Your task to perform on an android device: empty trash in google photos Image 0: 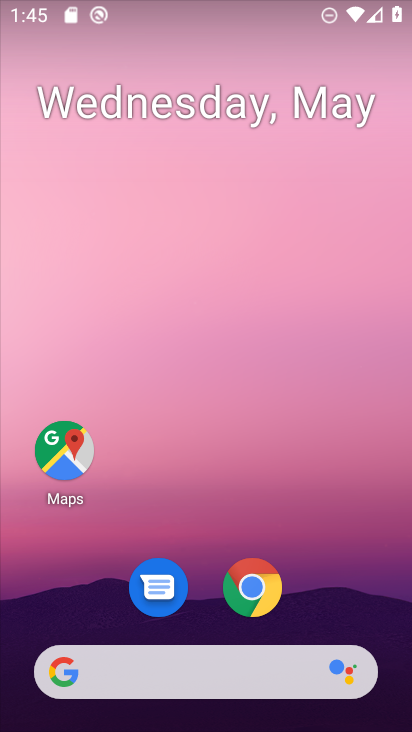
Step 0: drag from (329, 610) to (325, 135)
Your task to perform on an android device: empty trash in google photos Image 1: 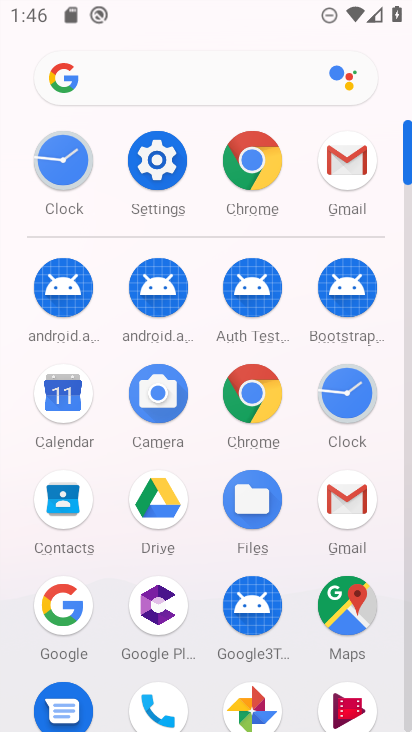
Step 1: click (264, 691)
Your task to perform on an android device: empty trash in google photos Image 2: 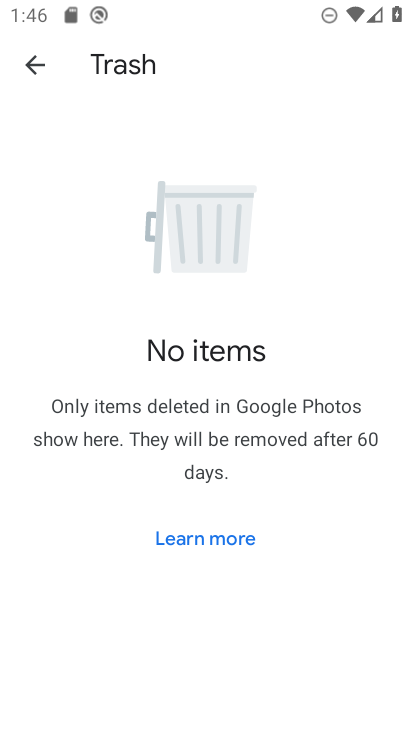
Step 2: click (30, 68)
Your task to perform on an android device: empty trash in google photos Image 3: 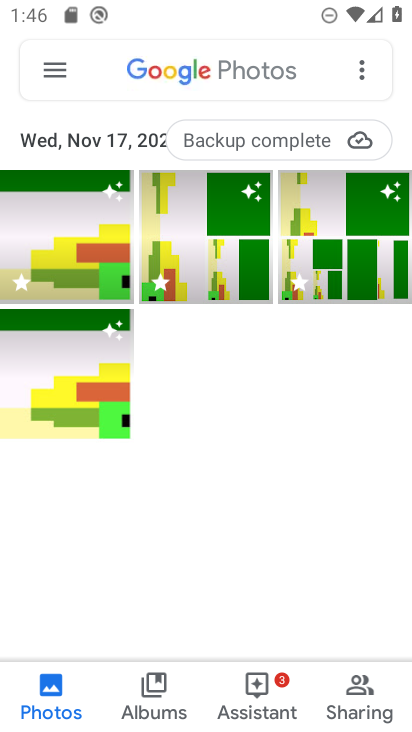
Step 3: task complete